Your task to perform on an android device: Go to location settings Image 0: 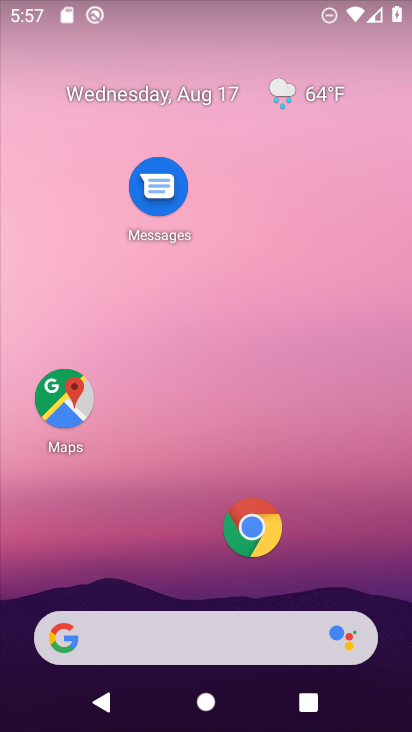
Step 0: click (64, 405)
Your task to perform on an android device: Go to location settings Image 1: 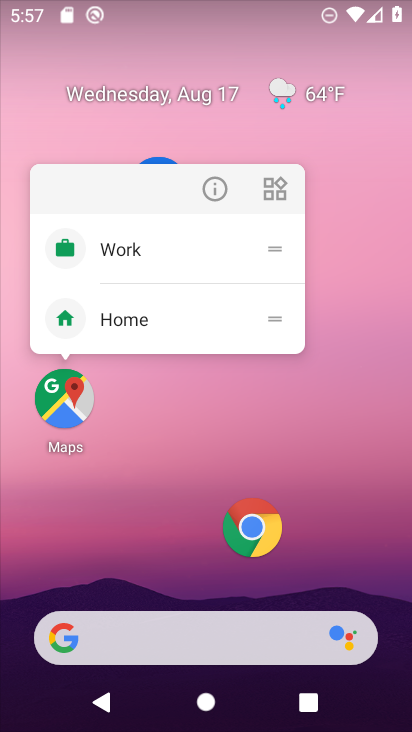
Step 1: click (65, 419)
Your task to perform on an android device: Go to location settings Image 2: 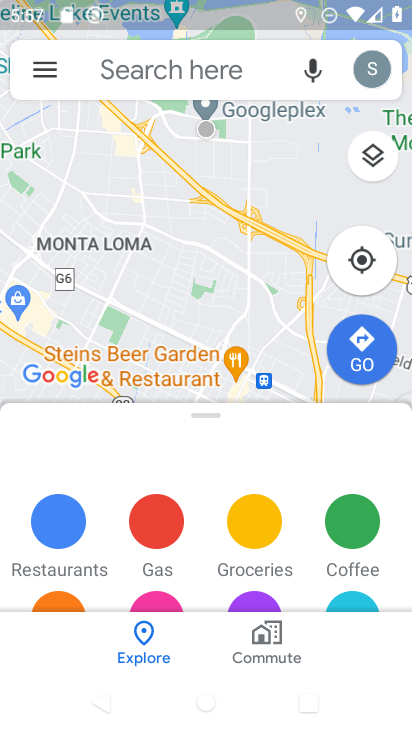
Step 2: click (177, 70)
Your task to perform on an android device: Go to location settings Image 3: 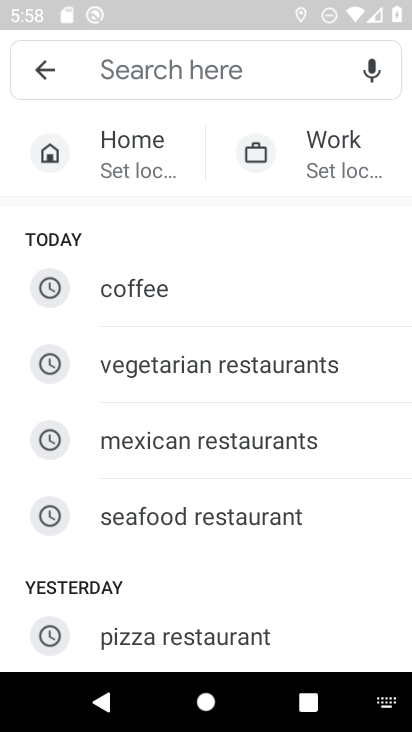
Step 3: press home button
Your task to perform on an android device: Go to location settings Image 4: 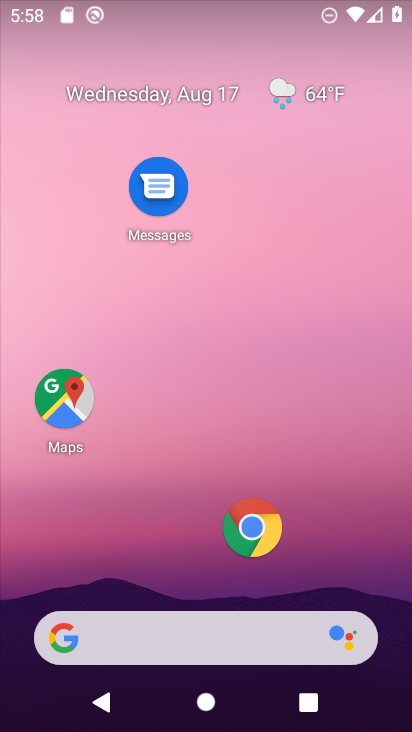
Step 4: drag from (201, 610) to (246, 197)
Your task to perform on an android device: Go to location settings Image 5: 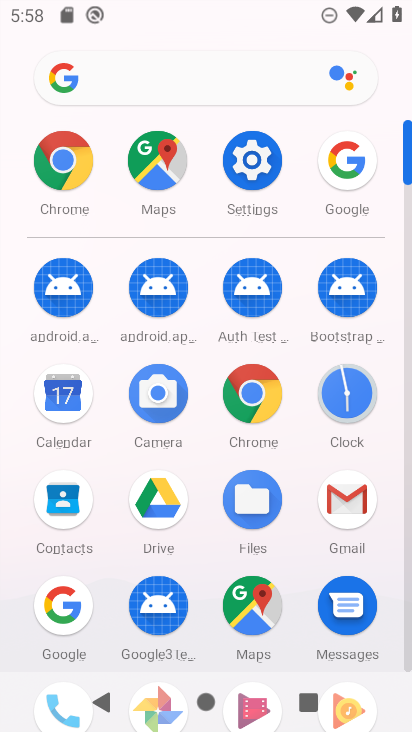
Step 5: click (248, 157)
Your task to perform on an android device: Go to location settings Image 6: 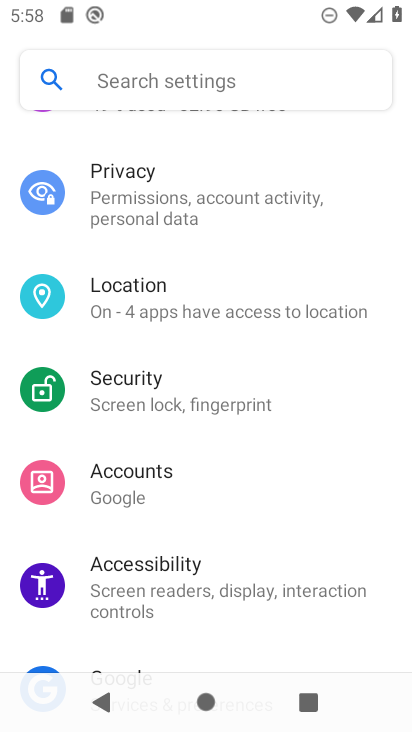
Step 6: click (158, 308)
Your task to perform on an android device: Go to location settings Image 7: 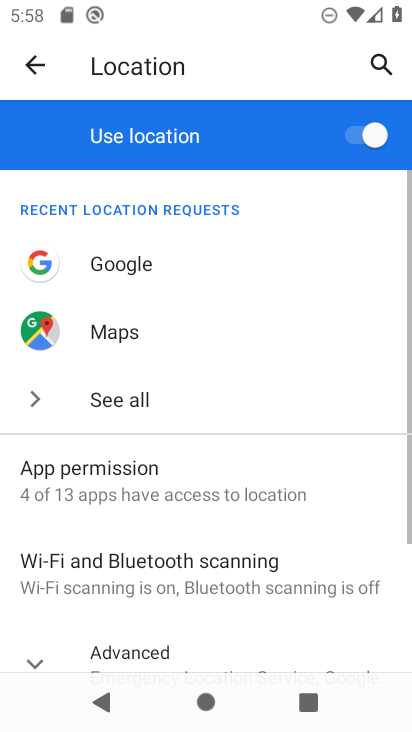
Step 7: drag from (149, 604) to (195, 267)
Your task to perform on an android device: Go to location settings Image 8: 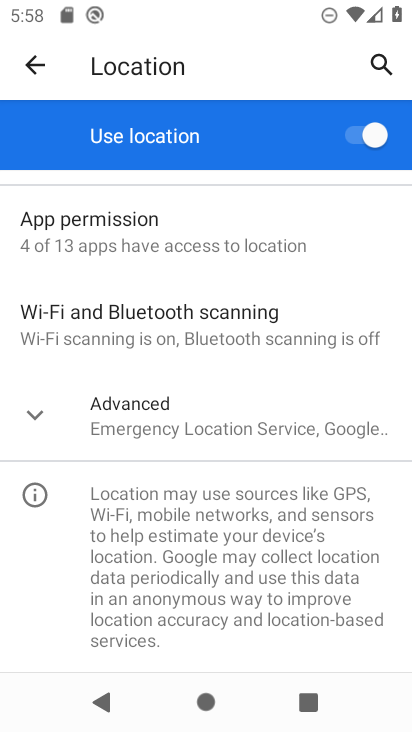
Step 8: click (134, 416)
Your task to perform on an android device: Go to location settings Image 9: 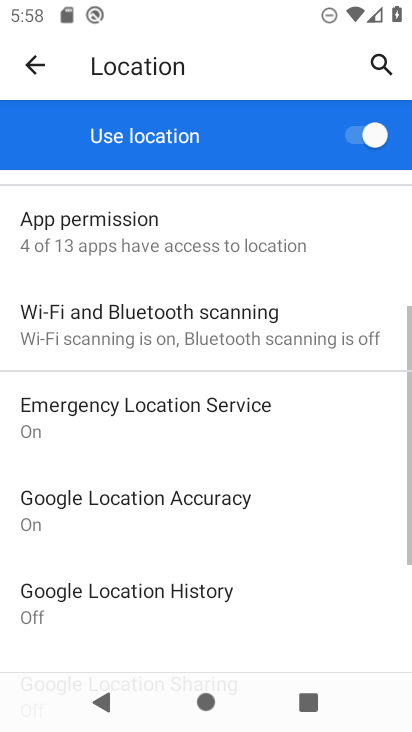
Step 9: task complete